Your task to perform on an android device: Go to notification settings Image 0: 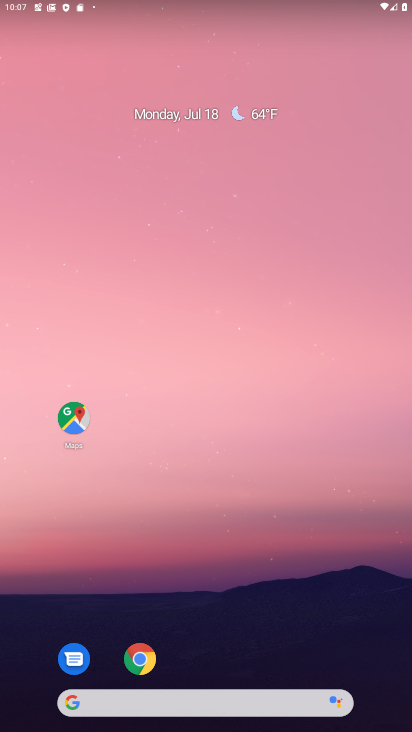
Step 0: drag from (206, 660) to (168, 134)
Your task to perform on an android device: Go to notification settings Image 1: 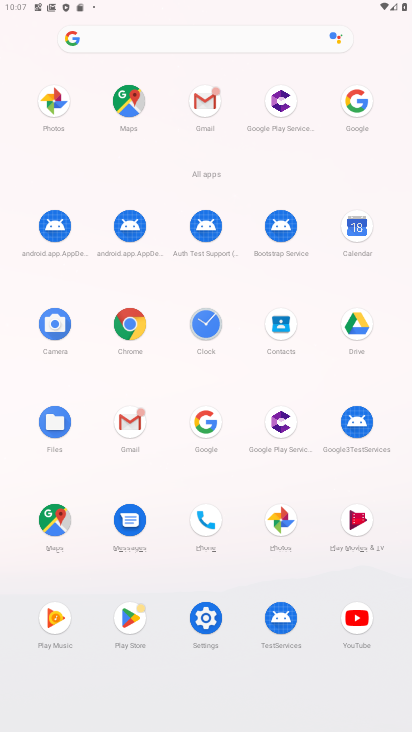
Step 1: click (207, 619)
Your task to perform on an android device: Go to notification settings Image 2: 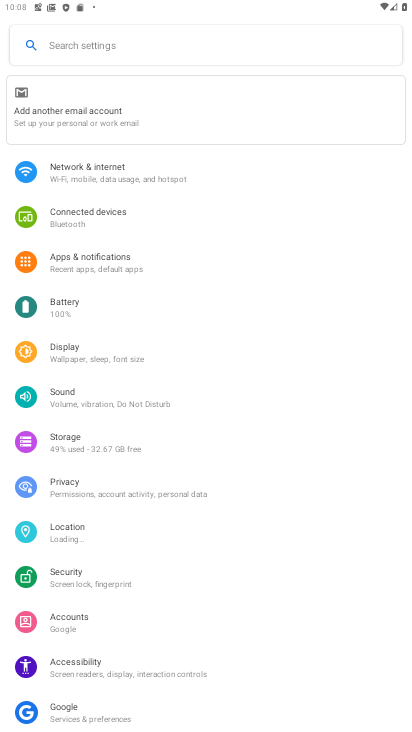
Step 2: click (137, 265)
Your task to perform on an android device: Go to notification settings Image 3: 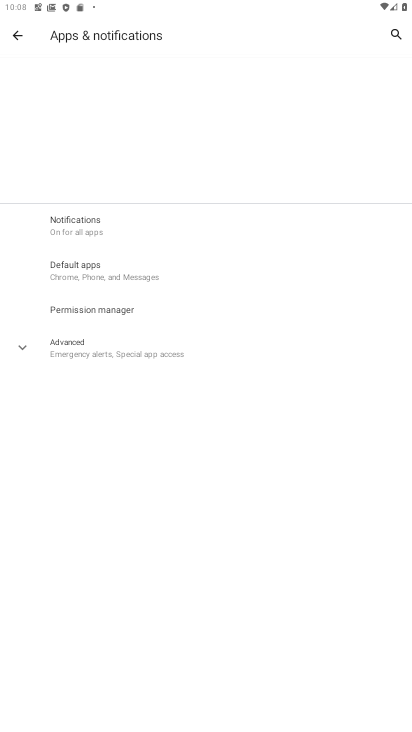
Step 3: click (96, 210)
Your task to perform on an android device: Go to notification settings Image 4: 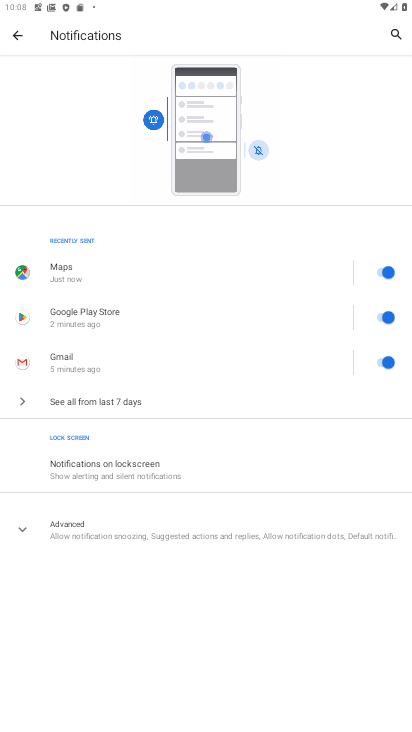
Step 4: task complete